Your task to perform on an android device: add a label to a message in the gmail app Image 0: 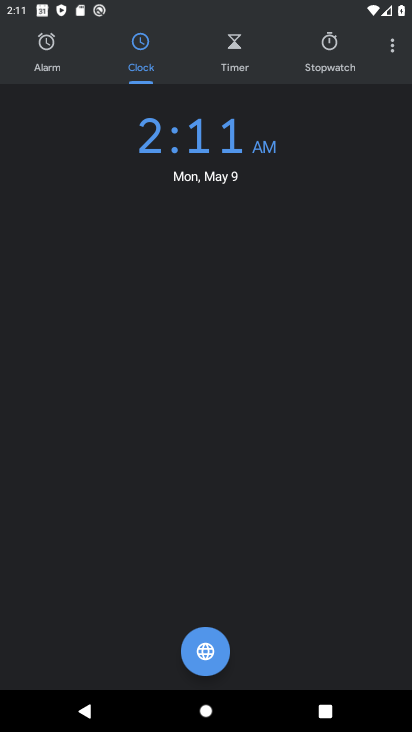
Step 0: press home button
Your task to perform on an android device: add a label to a message in the gmail app Image 1: 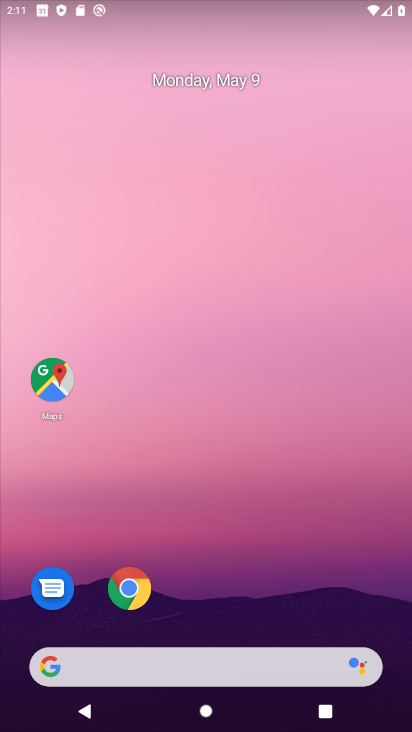
Step 1: drag from (312, 602) to (276, 48)
Your task to perform on an android device: add a label to a message in the gmail app Image 2: 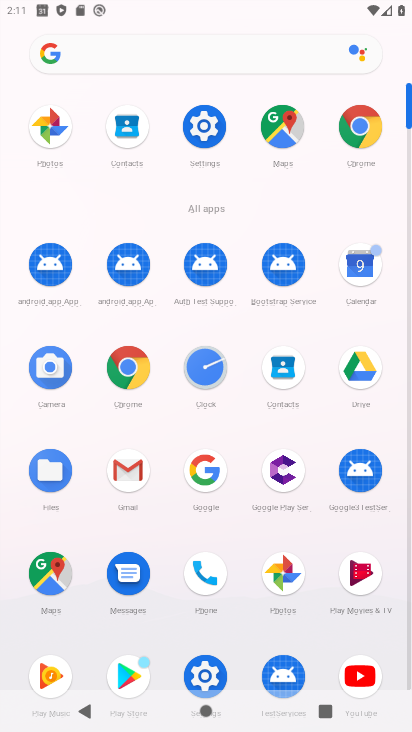
Step 2: click (132, 465)
Your task to perform on an android device: add a label to a message in the gmail app Image 3: 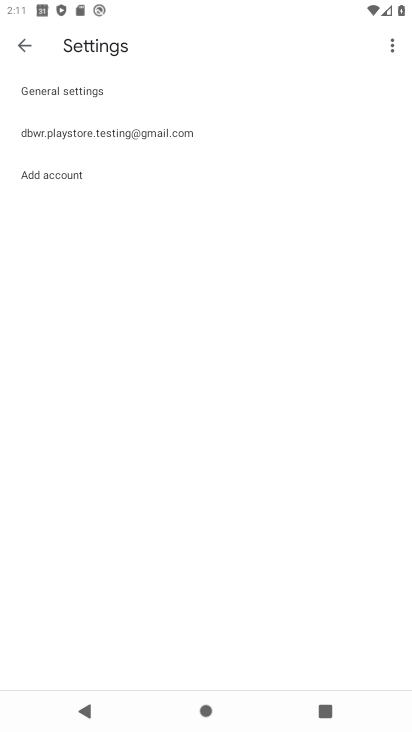
Step 3: press back button
Your task to perform on an android device: add a label to a message in the gmail app Image 4: 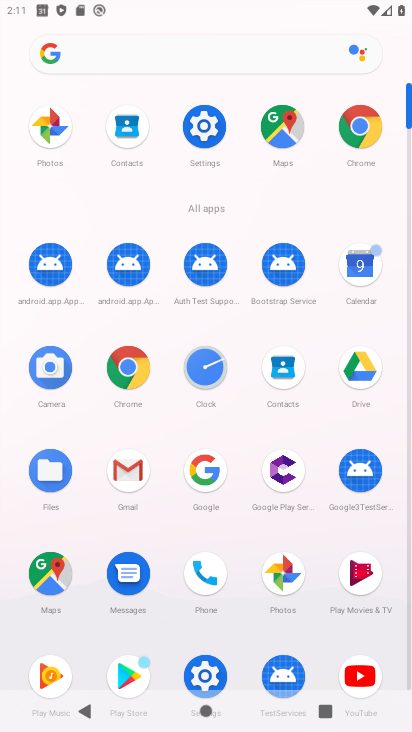
Step 4: click (131, 468)
Your task to perform on an android device: add a label to a message in the gmail app Image 5: 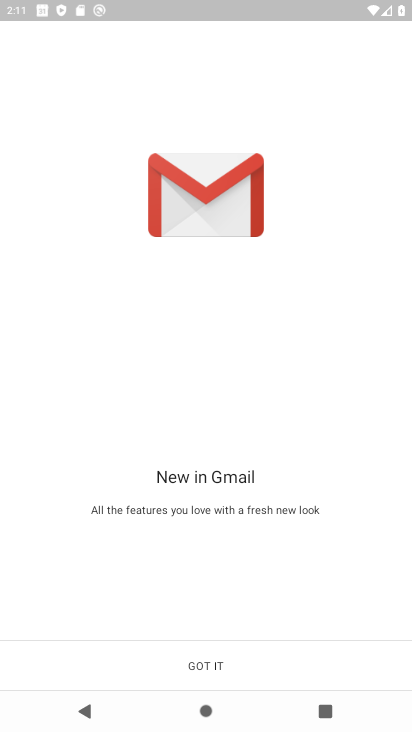
Step 5: click (215, 661)
Your task to perform on an android device: add a label to a message in the gmail app Image 6: 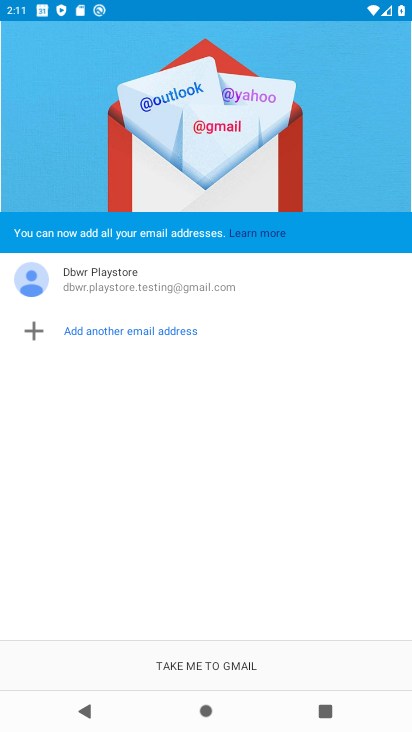
Step 6: click (215, 661)
Your task to perform on an android device: add a label to a message in the gmail app Image 7: 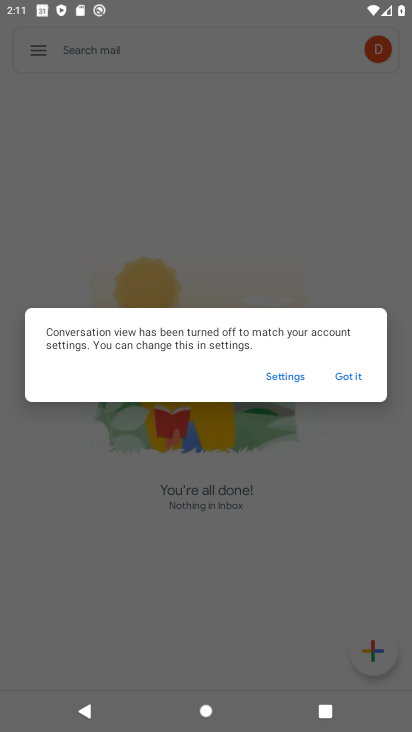
Step 7: click (352, 382)
Your task to perform on an android device: add a label to a message in the gmail app Image 8: 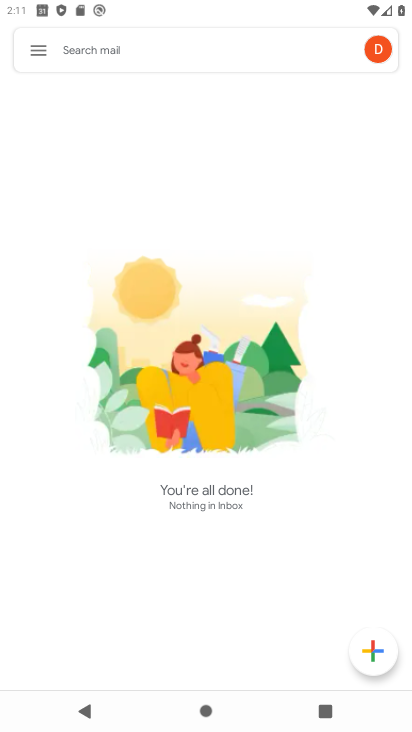
Step 8: task complete